Your task to perform on an android device: Is it going to rain tomorrow? Image 0: 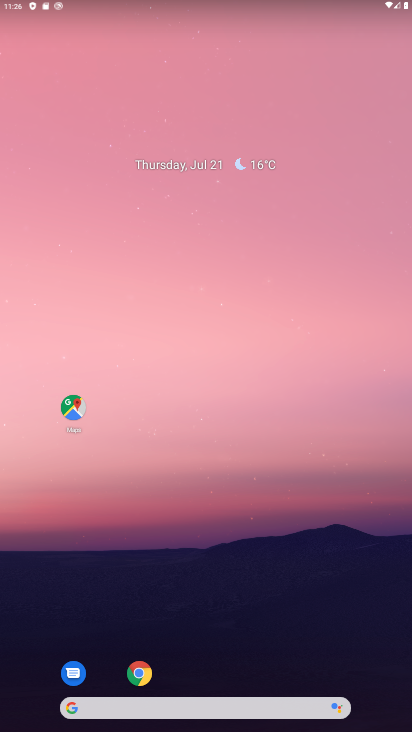
Step 0: drag from (265, 652) to (271, 41)
Your task to perform on an android device: Is it going to rain tomorrow? Image 1: 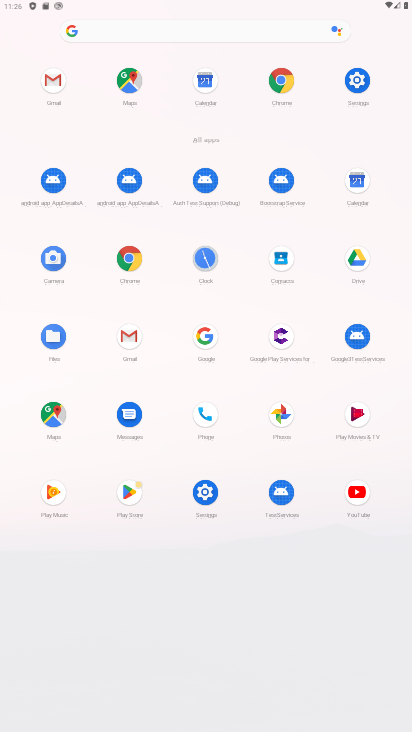
Step 1: click (208, 341)
Your task to perform on an android device: Is it going to rain tomorrow? Image 2: 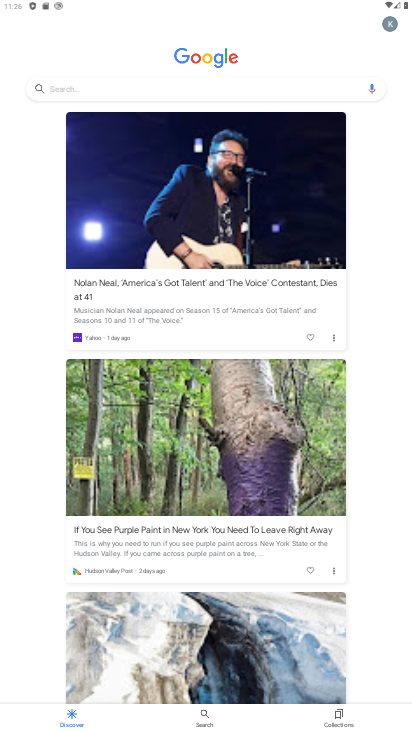
Step 2: click (170, 83)
Your task to perform on an android device: Is it going to rain tomorrow? Image 3: 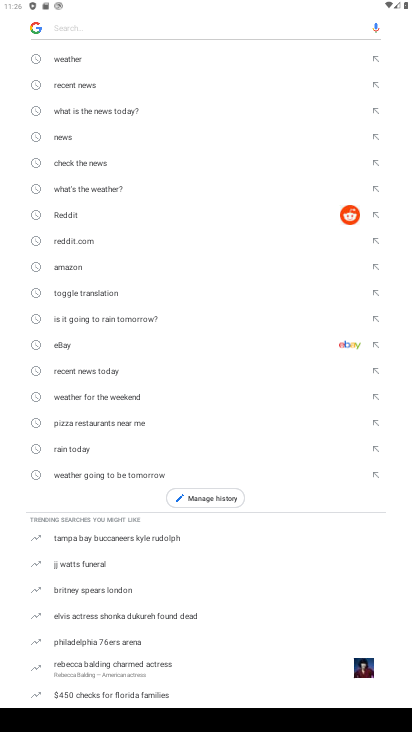
Step 3: click (70, 64)
Your task to perform on an android device: Is it going to rain tomorrow? Image 4: 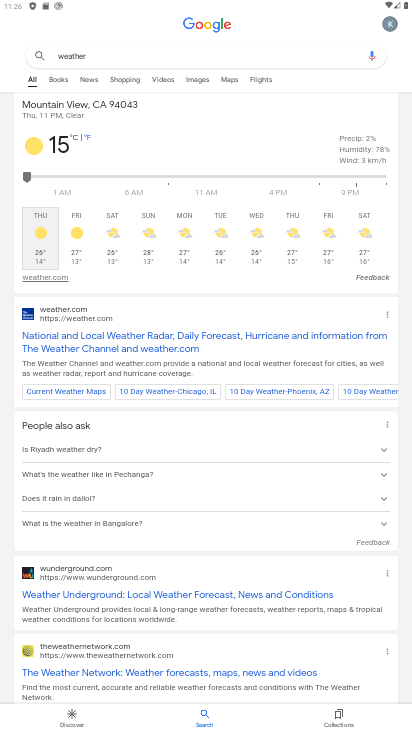
Step 4: task complete